Your task to perform on an android device: turn off javascript in the chrome app Image 0: 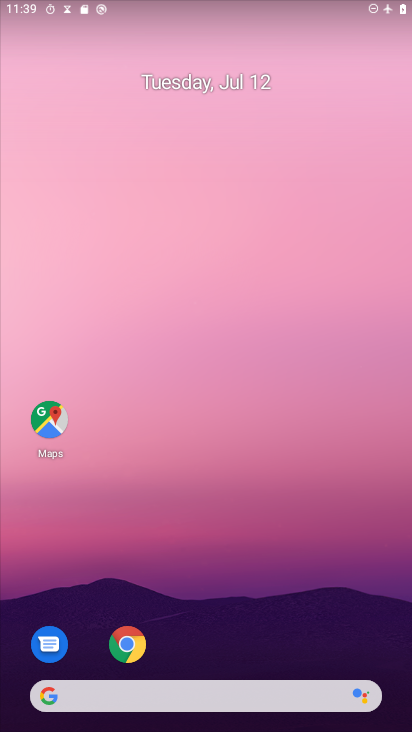
Step 0: click (127, 643)
Your task to perform on an android device: turn off javascript in the chrome app Image 1: 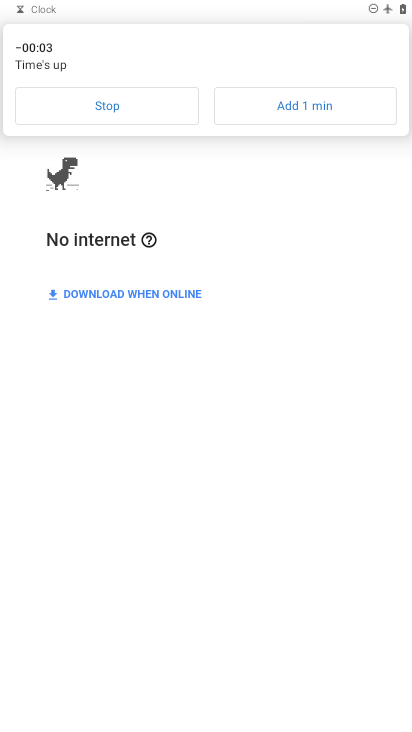
Step 1: click (89, 110)
Your task to perform on an android device: turn off javascript in the chrome app Image 2: 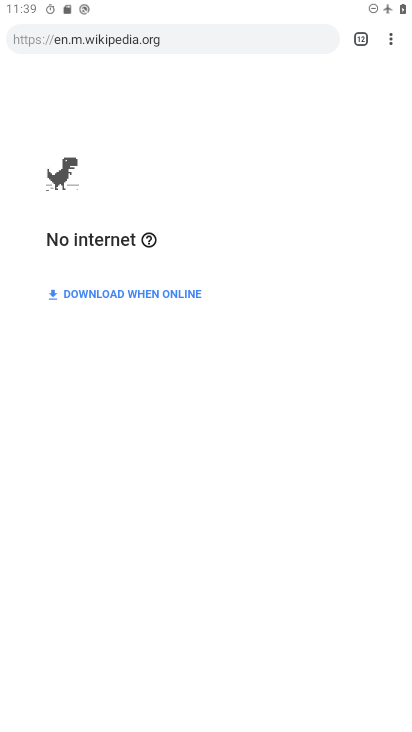
Step 2: click (392, 41)
Your task to perform on an android device: turn off javascript in the chrome app Image 3: 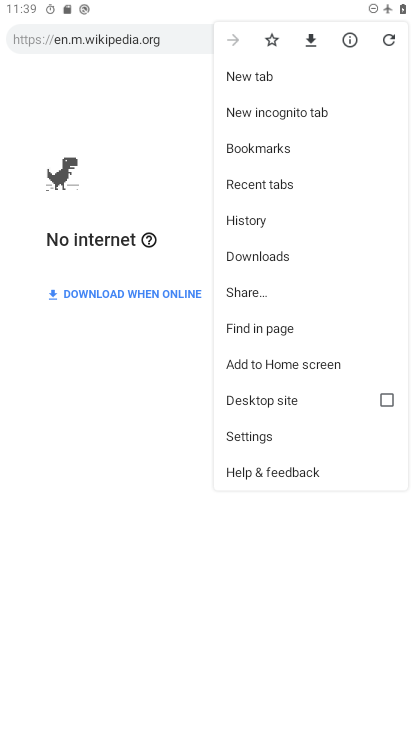
Step 3: click (268, 430)
Your task to perform on an android device: turn off javascript in the chrome app Image 4: 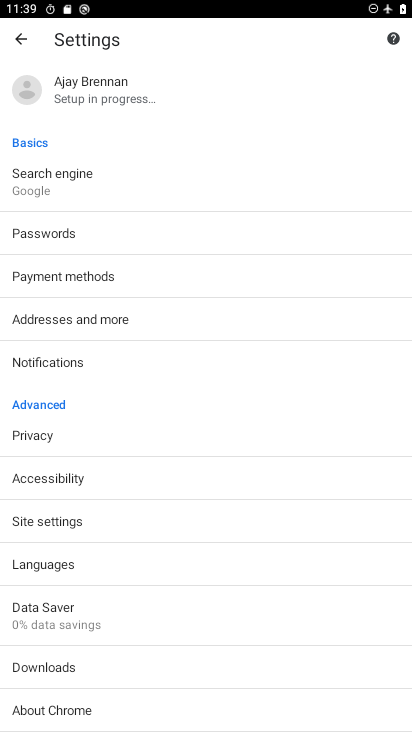
Step 4: click (77, 524)
Your task to perform on an android device: turn off javascript in the chrome app Image 5: 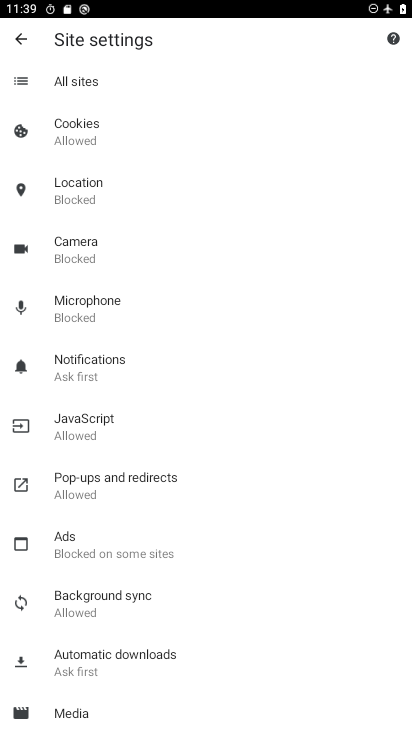
Step 5: click (115, 414)
Your task to perform on an android device: turn off javascript in the chrome app Image 6: 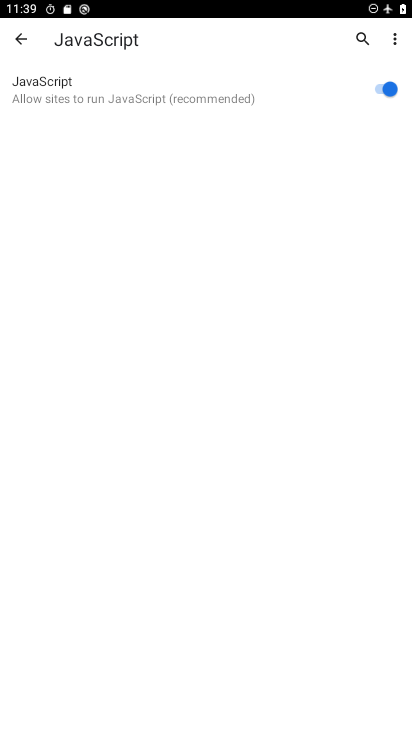
Step 6: click (371, 89)
Your task to perform on an android device: turn off javascript in the chrome app Image 7: 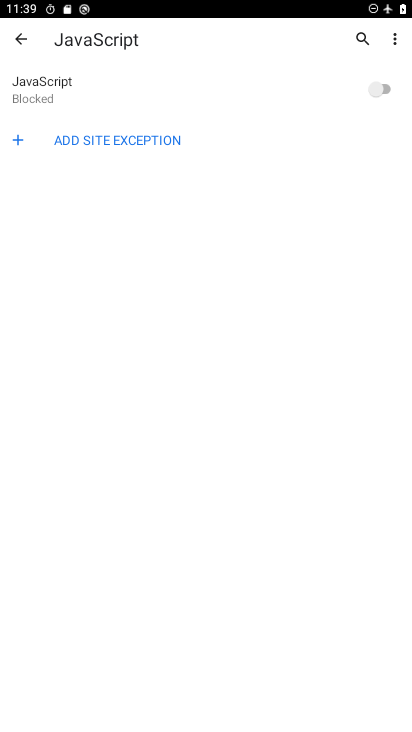
Step 7: task complete